Your task to perform on an android device: When is my next meeting? Image 0: 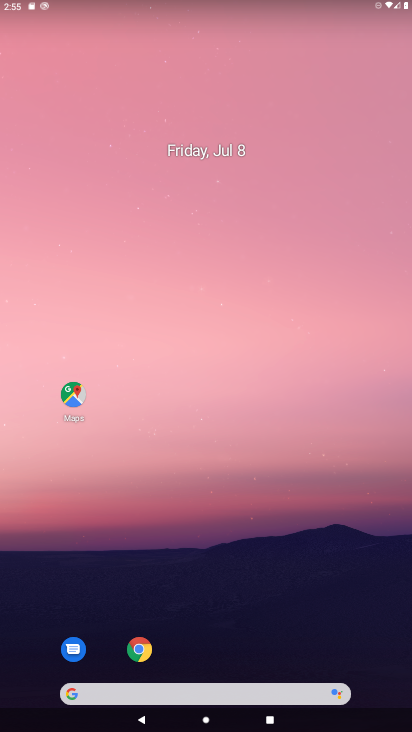
Step 0: drag from (380, 649) to (352, 145)
Your task to perform on an android device: When is my next meeting? Image 1: 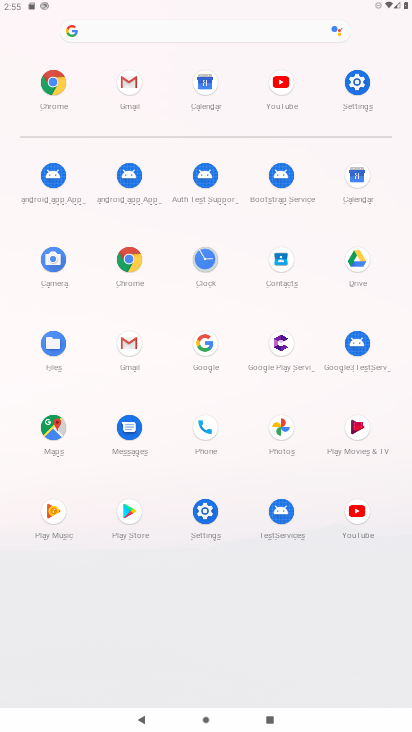
Step 1: click (356, 172)
Your task to perform on an android device: When is my next meeting? Image 2: 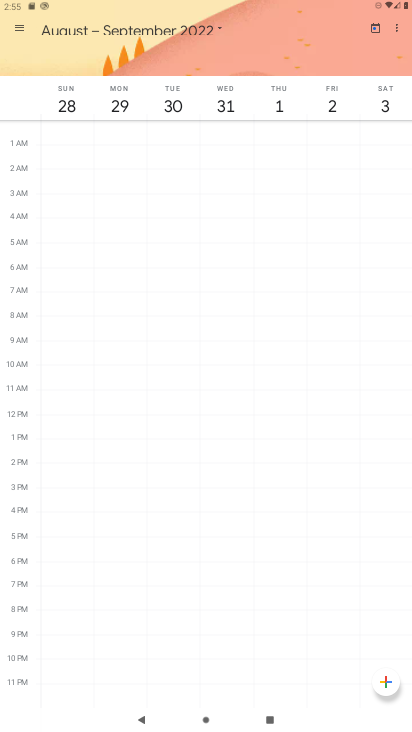
Step 2: click (22, 25)
Your task to perform on an android device: When is my next meeting? Image 3: 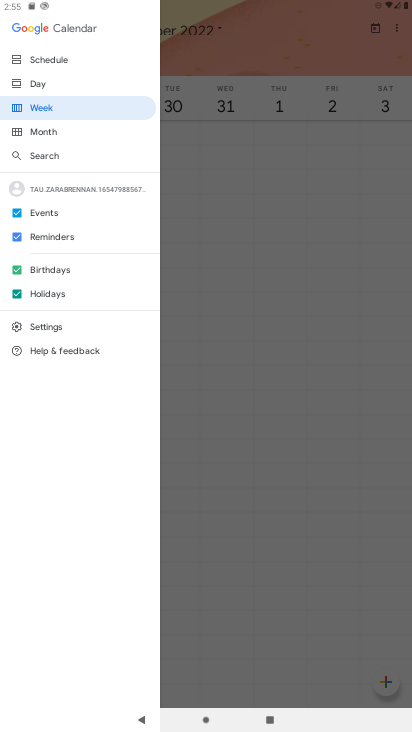
Step 3: click (47, 56)
Your task to perform on an android device: When is my next meeting? Image 4: 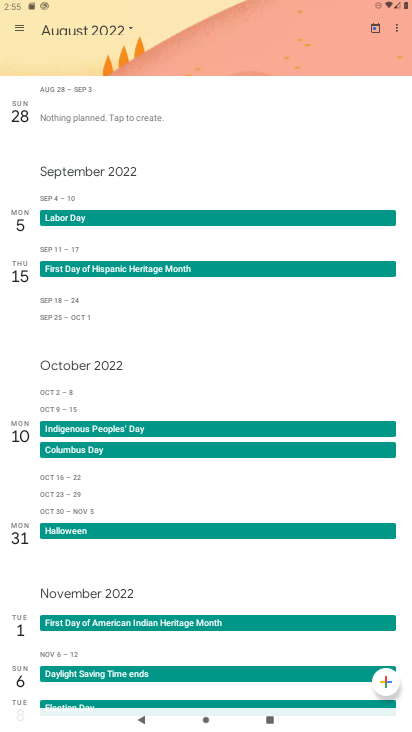
Step 4: task complete